Your task to perform on an android device: turn off sleep mode Image 0: 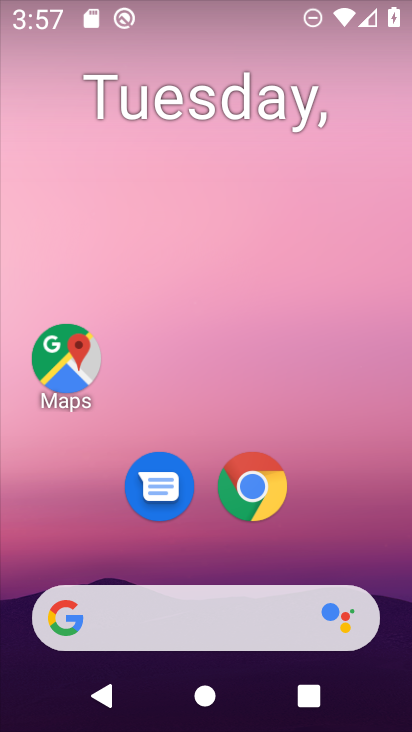
Step 0: drag from (148, 548) to (219, 1)
Your task to perform on an android device: turn off sleep mode Image 1: 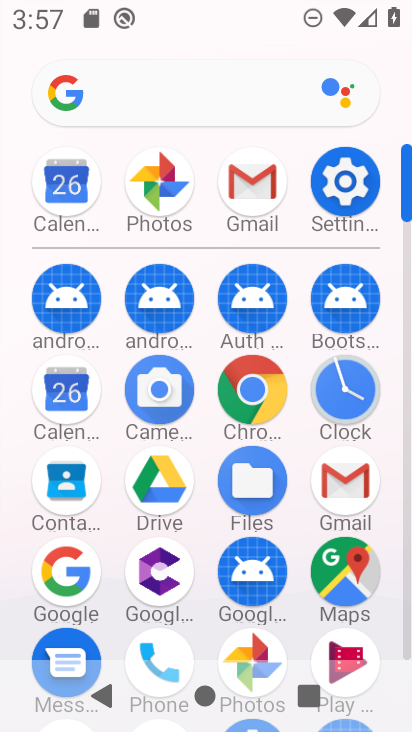
Step 1: click (336, 195)
Your task to perform on an android device: turn off sleep mode Image 2: 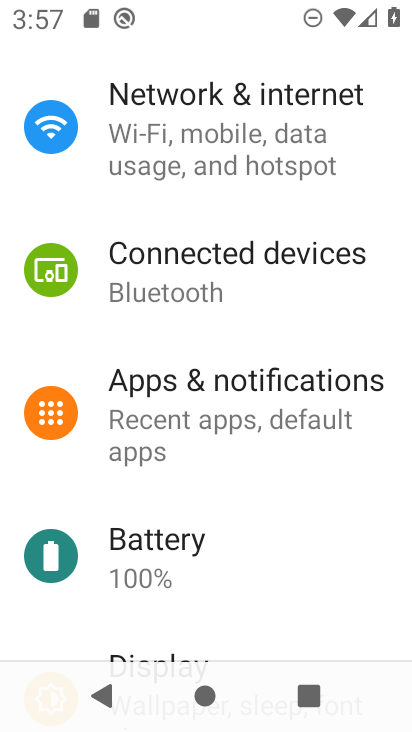
Step 2: drag from (247, 132) to (177, 686)
Your task to perform on an android device: turn off sleep mode Image 3: 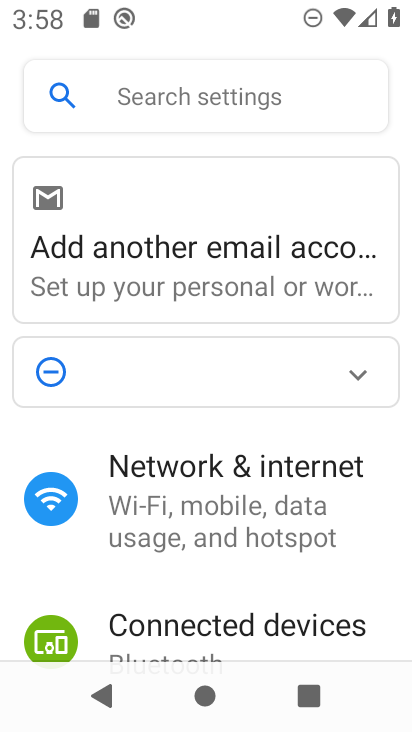
Step 3: click (201, 95)
Your task to perform on an android device: turn off sleep mode Image 4: 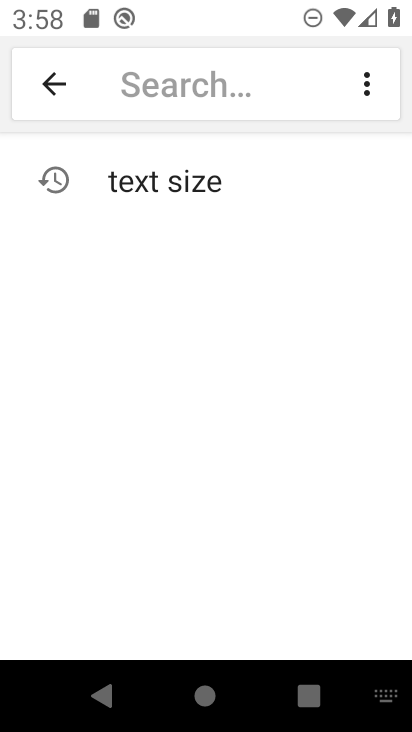
Step 4: type "sleep mode"
Your task to perform on an android device: turn off sleep mode Image 5: 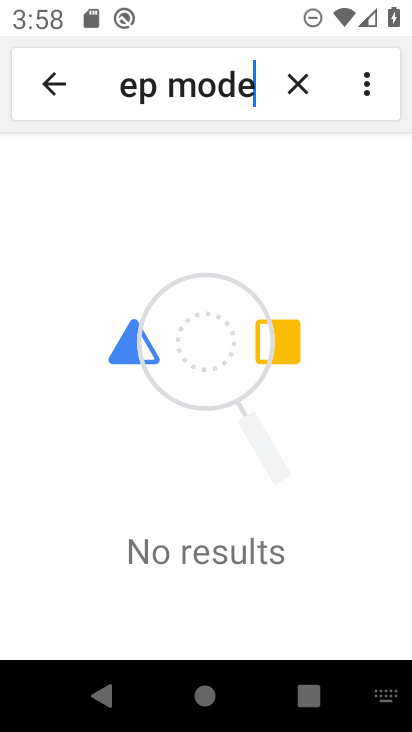
Step 5: task complete